Your task to perform on an android device: turn off sleep mode Image 0: 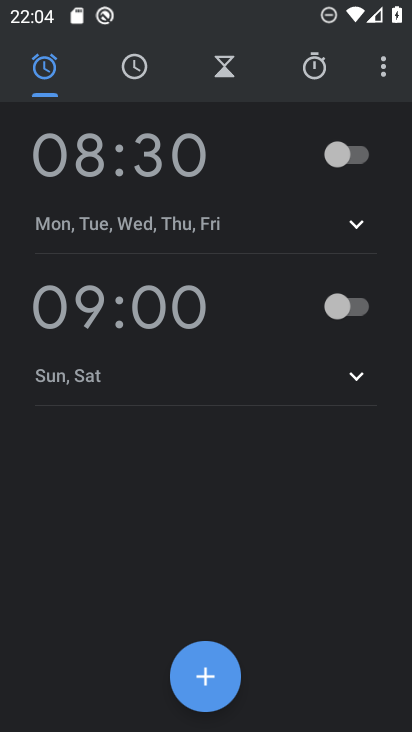
Step 0: press home button
Your task to perform on an android device: turn off sleep mode Image 1: 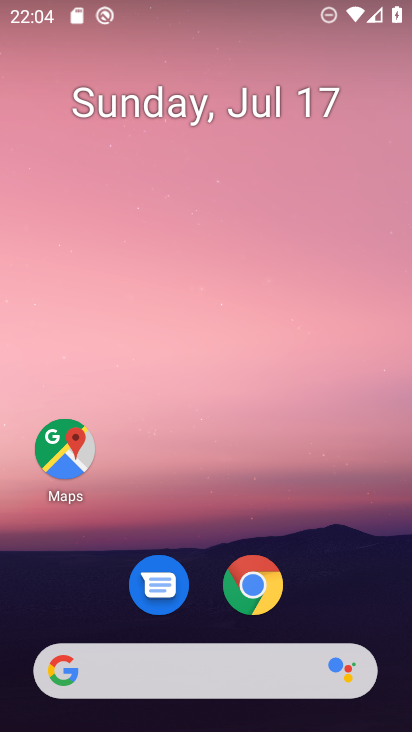
Step 1: drag from (167, 670) to (285, 140)
Your task to perform on an android device: turn off sleep mode Image 2: 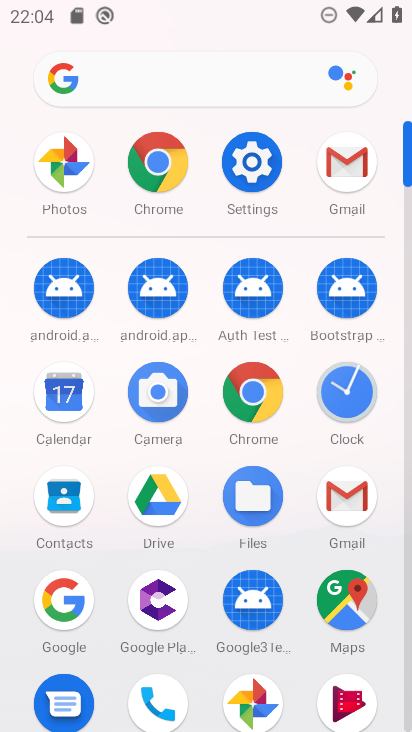
Step 2: click (254, 172)
Your task to perform on an android device: turn off sleep mode Image 3: 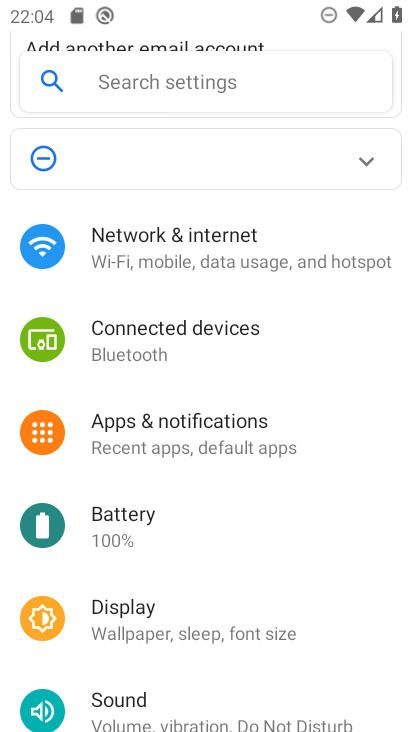
Step 3: click (177, 621)
Your task to perform on an android device: turn off sleep mode Image 4: 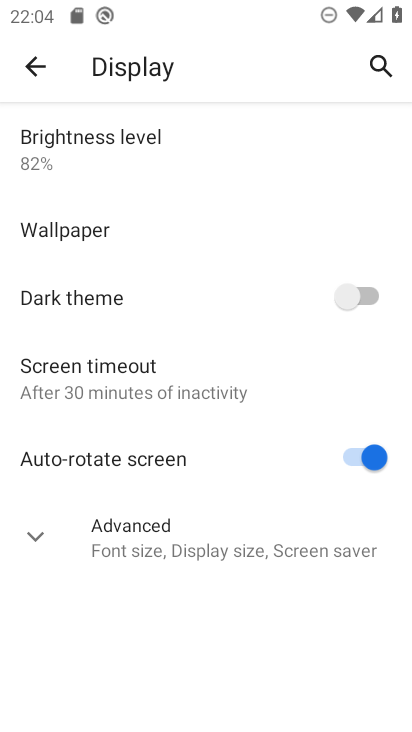
Step 4: click (133, 534)
Your task to perform on an android device: turn off sleep mode Image 5: 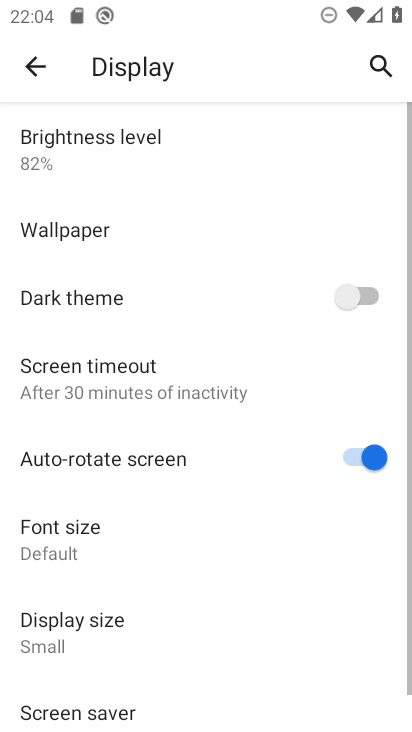
Step 5: task complete